Your task to perform on an android device: Go to display settings Image 0: 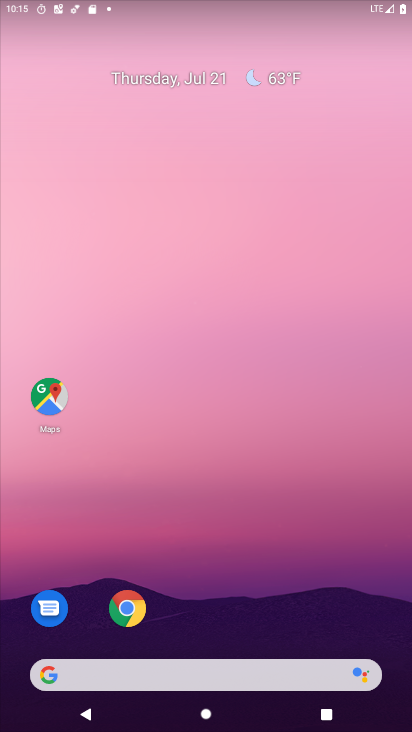
Step 0: drag from (224, 675) to (300, 176)
Your task to perform on an android device: Go to display settings Image 1: 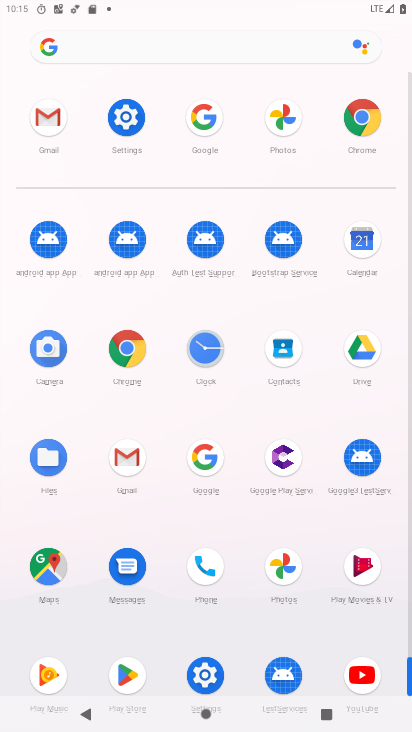
Step 1: click (134, 137)
Your task to perform on an android device: Go to display settings Image 2: 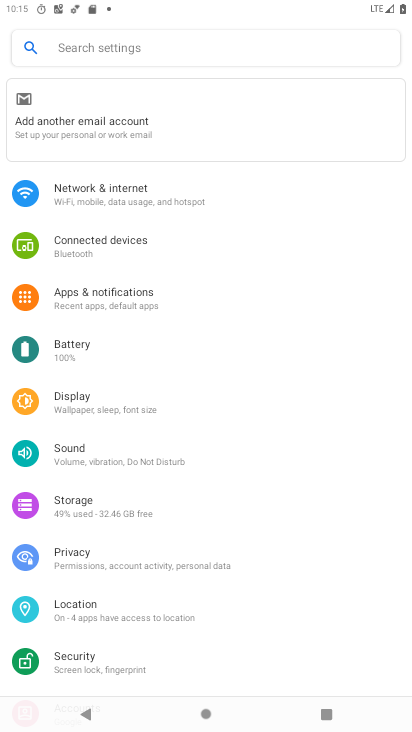
Step 2: click (124, 412)
Your task to perform on an android device: Go to display settings Image 3: 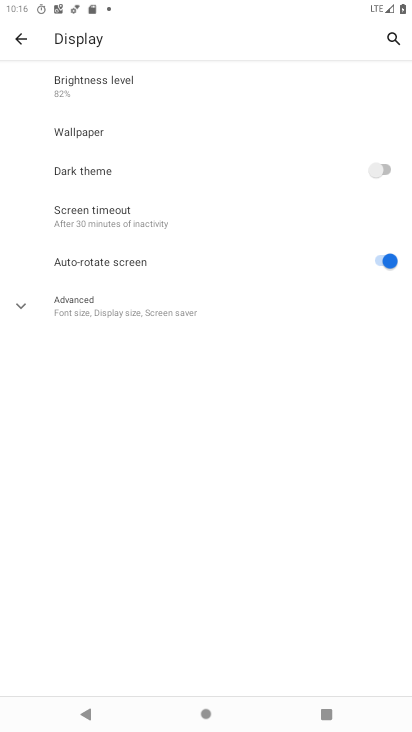
Step 3: task complete